Your task to perform on an android device: Open settings on Google Maps Image 0: 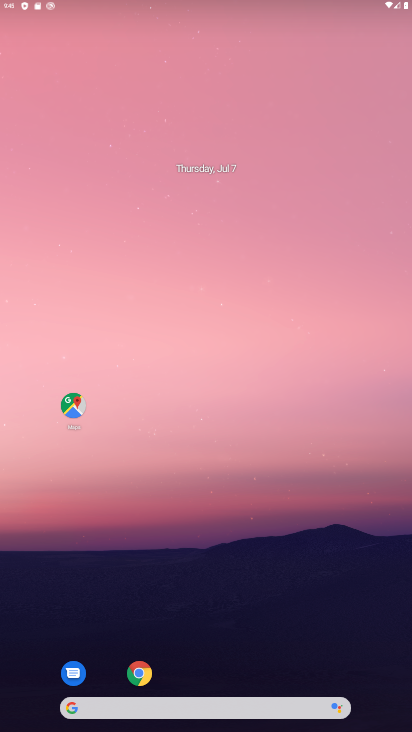
Step 0: press home button
Your task to perform on an android device: Open settings on Google Maps Image 1: 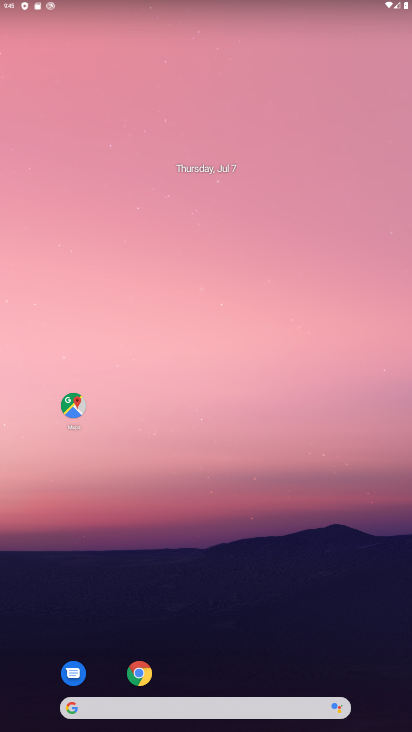
Step 1: drag from (305, 632) to (288, 173)
Your task to perform on an android device: Open settings on Google Maps Image 2: 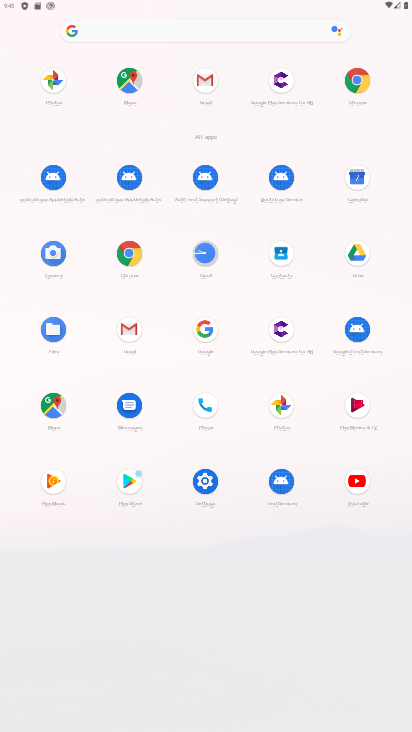
Step 2: click (120, 87)
Your task to perform on an android device: Open settings on Google Maps Image 3: 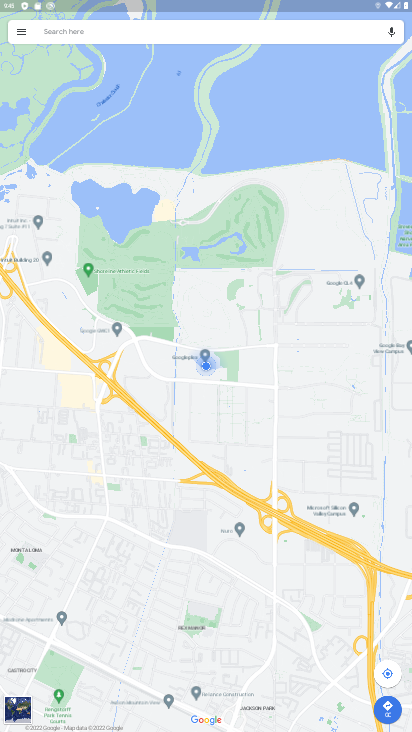
Step 3: click (23, 30)
Your task to perform on an android device: Open settings on Google Maps Image 4: 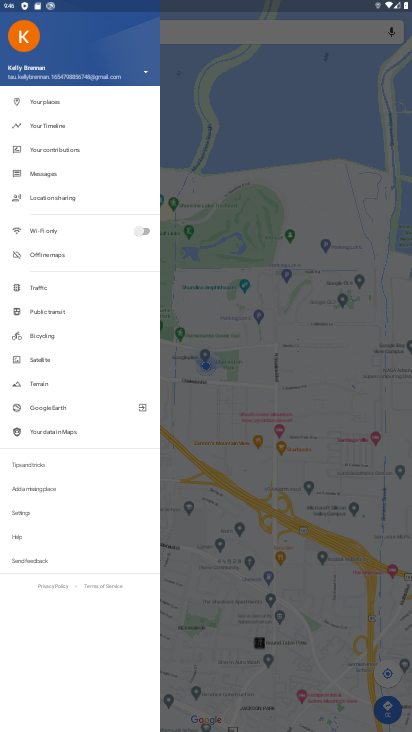
Step 4: click (39, 515)
Your task to perform on an android device: Open settings on Google Maps Image 5: 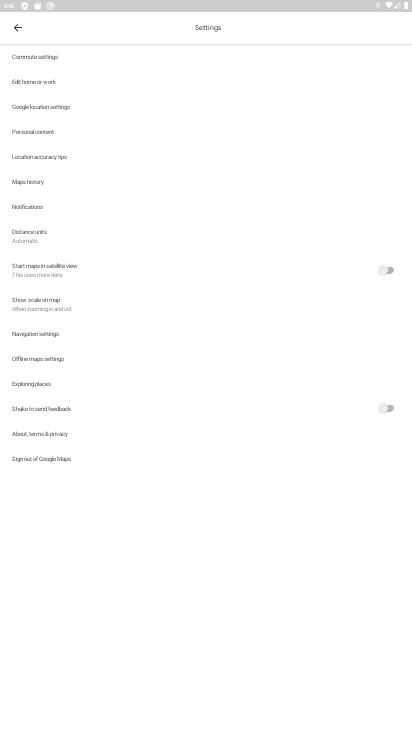
Step 5: task complete